Your task to perform on an android device: Open the map Image 0: 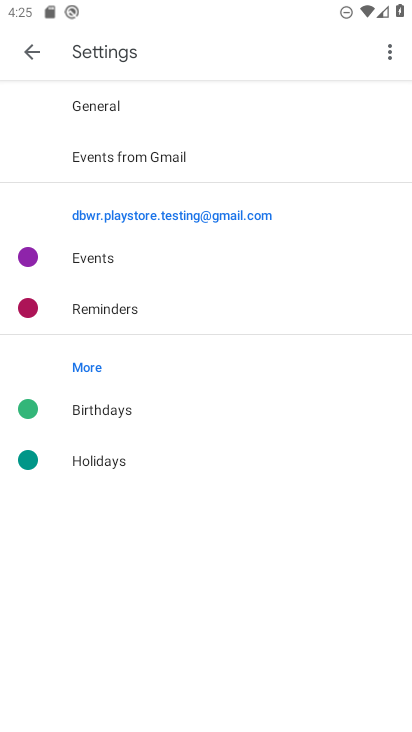
Step 0: press home button
Your task to perform on an android device: Open the map Image 1: 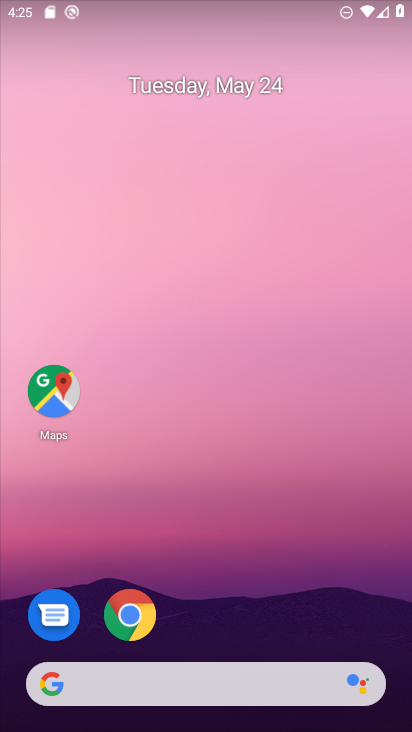
Step 1: click (54, 403)
Your task to perform on an android device: Open the map Image 2: 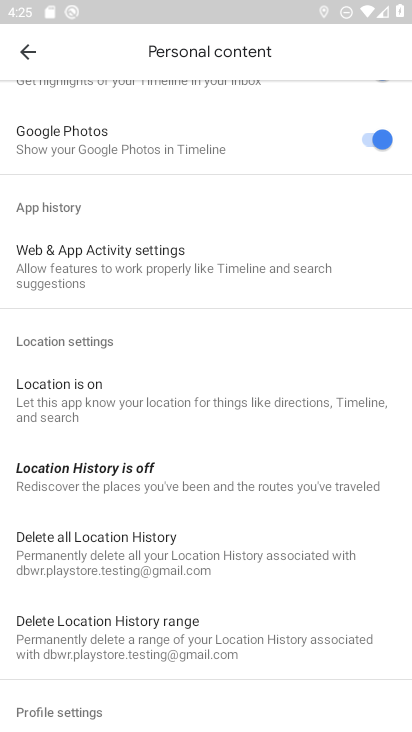
Step 2: click (26, 46)
Your task to perform on an android device: Open the map Image 3: 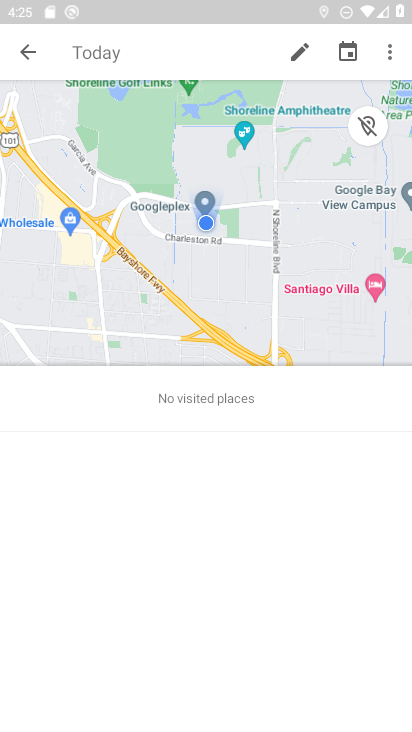
Step 3: click (26, 48)
Your task to perform on an android device: Open the map Image 4: 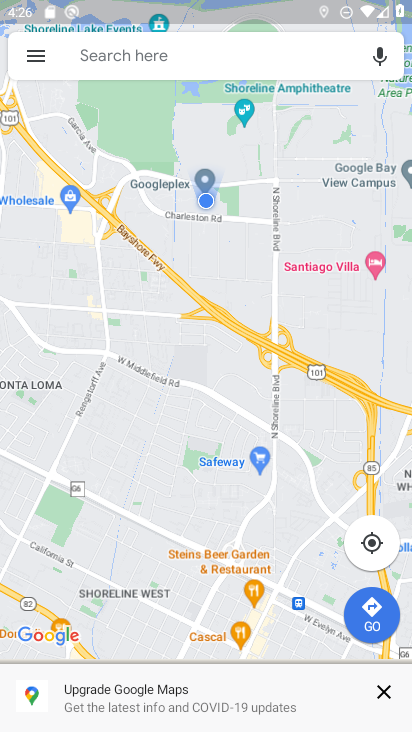
Step 4: task complete